Your task to perform on an android device: Open the Play Movies app and select the watchlist tab. Image 0: 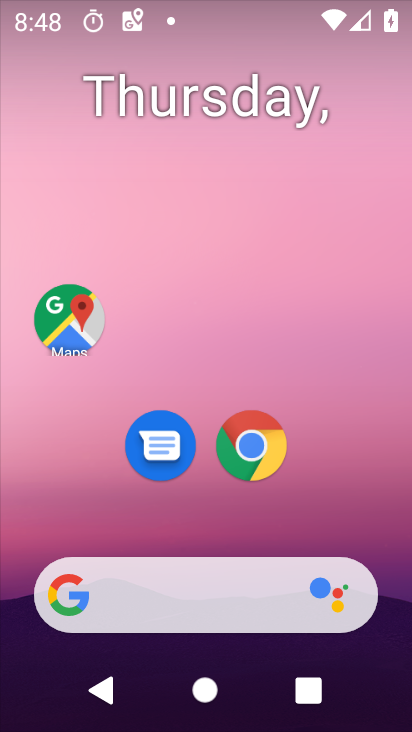
Step 0: drag from (31, 587) to (244, 232)
Your task to perform on an android device: Open the Play Movies app and select the watchlist tab. Image 1: 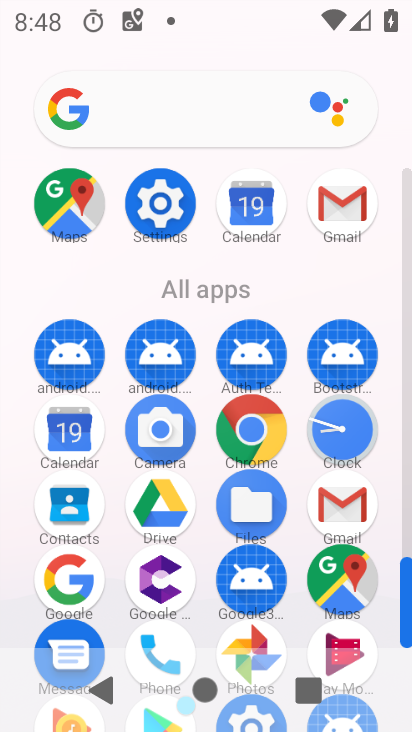
Step 1: click (327, 630)
Your task to perform on an android device: Open the Play Movies app and select the watchlist tab. Image 2: 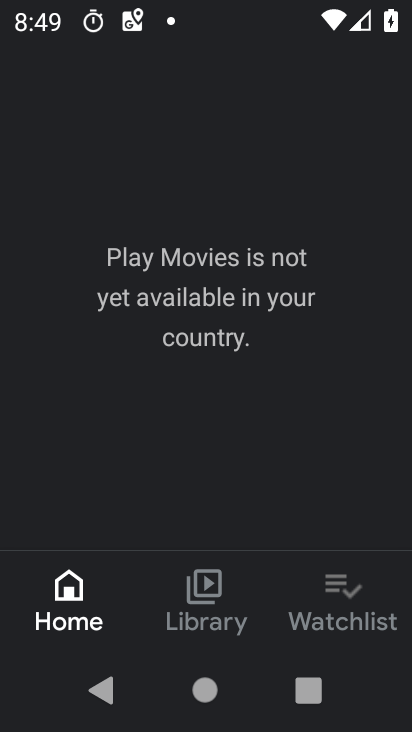
Step 2: click (344, 565)
Your task to perform on an android device: Open the Play Movies app and select the watchlist tab. Image 3: 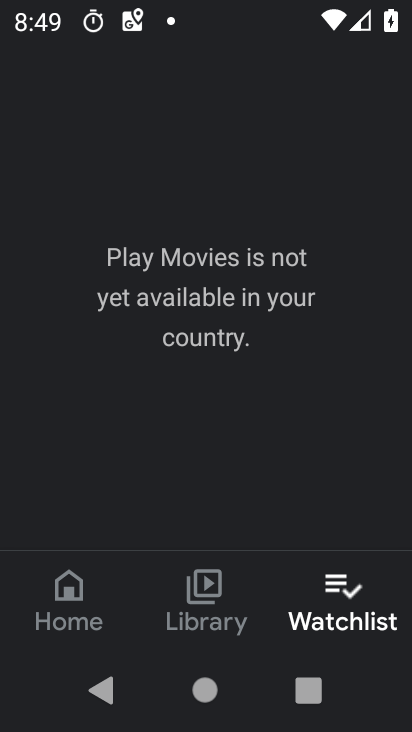
Step 3: task complete